Your task to perform on an android device: Search for a new lawnmower on Lowes.com Image 0: 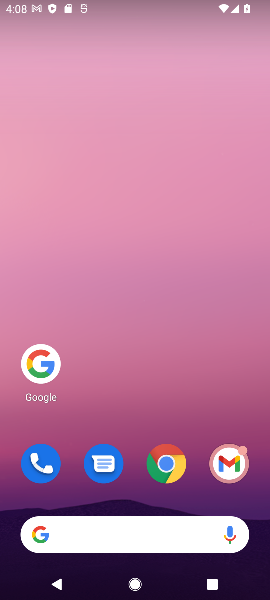
Step 0: drag from (133, 517) to (157, 188)
Your task to perform on an android device: Search for a new lawnmower on Lowes.com Image 1: 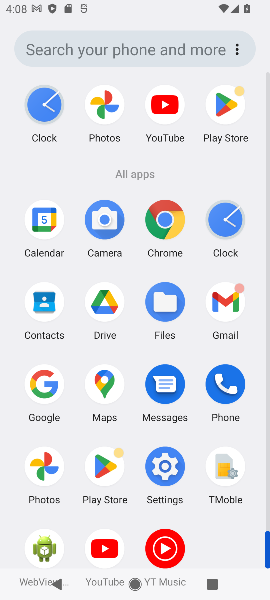
Step 1: click (40, 380)
Your task to perform on an android device: Search for a new lawnmower on Lowes.com Image 2: 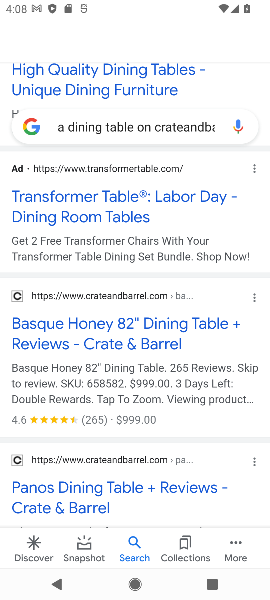
Step 2: click (166, 120)
Your task to perform on an android device: Search for a new lawnmower on Lowes.com Image 3: 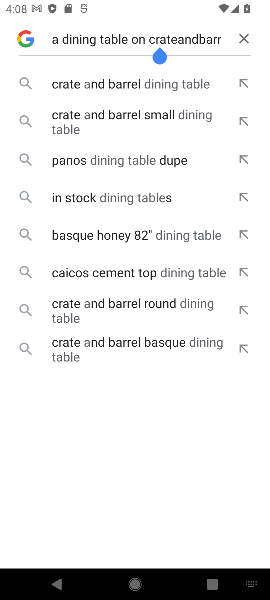
Step 3: click (243, 43)
Your task to perform on an android device: Search for a new lawnmower on Lowes.com Image 4: 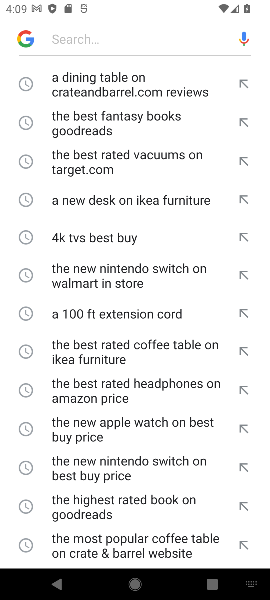
Step 4: click (148, 31)
Your task to perform on an android device: Search for a new lawnmower on Lowes.com Image 5: 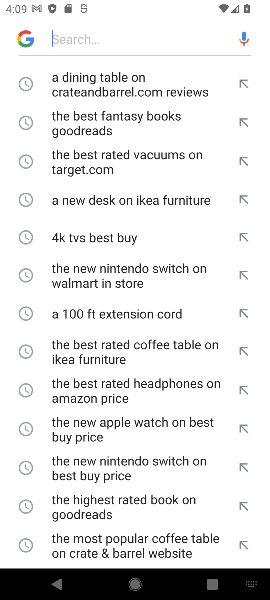
Step 5: type " a new lawnmower on Lowes.com "
Your task to perform on an android device: Search for a new lawnmower on Lowes.com Image 6: 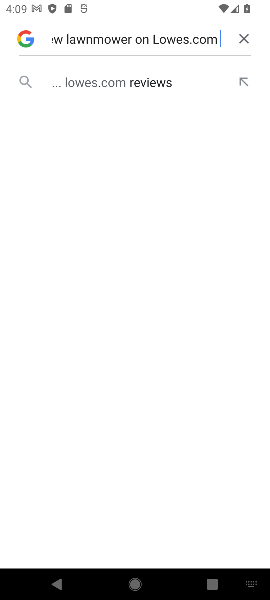
Step 6: click (88, 90)
Your task to perform on an android device: Search for a new lawnmower on Lowes.com Image 7: 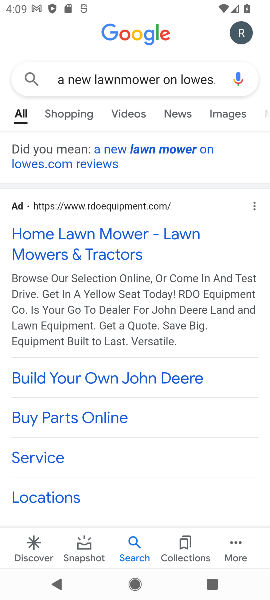
Step 7: click (103, 230)
Your task to perform on an android device: Search for a new lawnmower on Lowes.com Image 8: 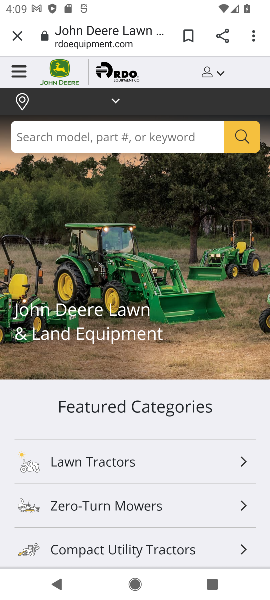
Step 8: drag from (179, 503) to (209, 139)
Your task to perform on an android device: Search for a new lawnmower on Lowes.com Image 9: 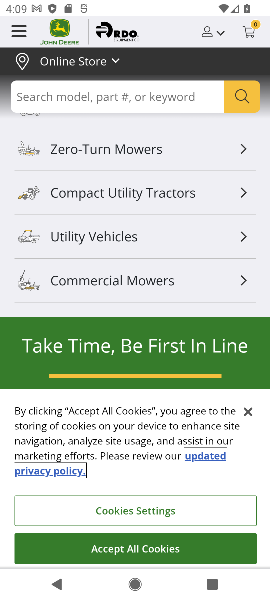
Step 9: click (245, 410)
Your task to perform on an android device: Search for a new lawnmower on Lowes.com Image 10: 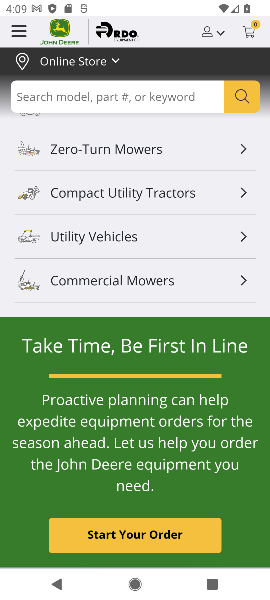
Step 10: drag from (207, 514) to (214, 179)
Your task to perform on an android device: Search for a new lawnmower on Lowes.com Image 11: 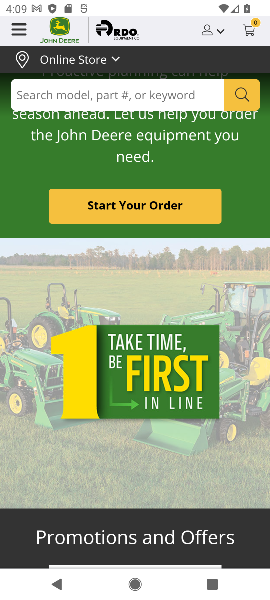
Step 11: drag from (159, 520) to (208, 169)
Your task to perform on an android device: Search for a new lawnmower on Lowes.com Image 12: 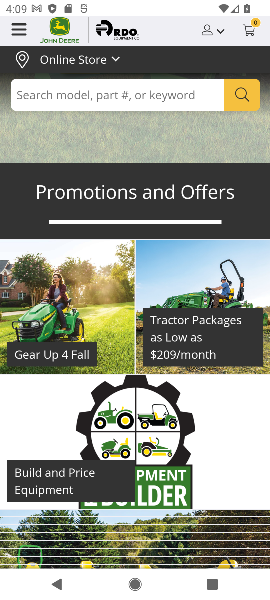
Step 12: drag from (200, 464) to (205, 168)
Your task to perform on an android device: Search for a new lawnmower on Lowes.com Image 13: 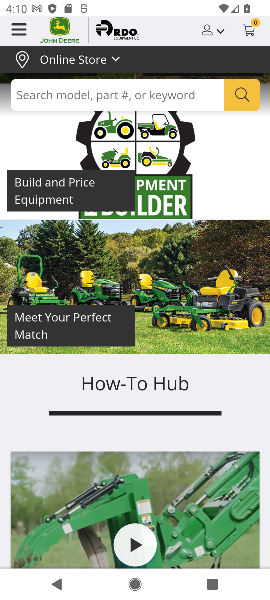
Step 13: drag from (192, 418) to (220, 173)
Your task to perform on an android device: Search for a new lawnmower on Lowes.com Image 14: 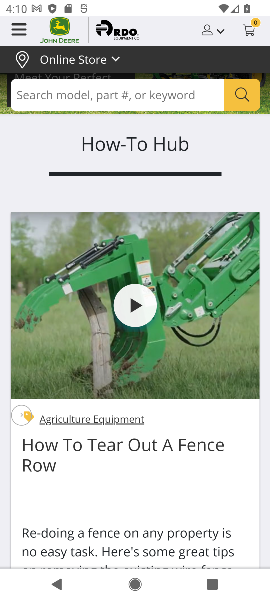
Step 14: click (179, 164)
Your task to perform on an android device: Search for a new lawnmower on Lowes.com Image 15: 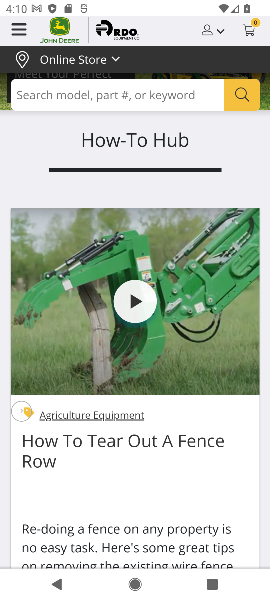
Step 15: task complete